Your task to perform on an android device: check out phone information Image 0: 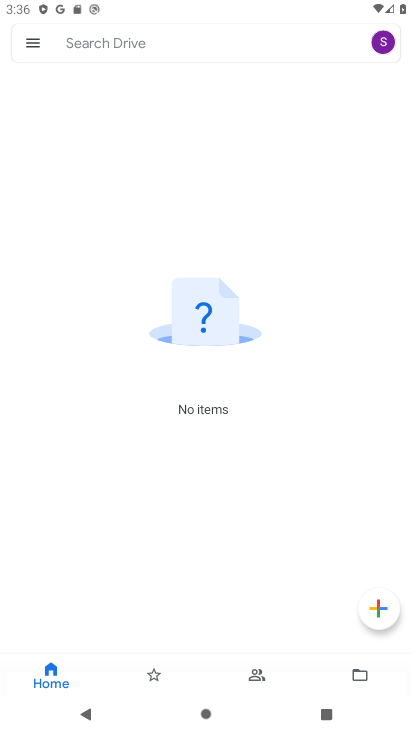
Step 0: task complete